Your task to perform on an android device: change alarm snooze length Image 0: 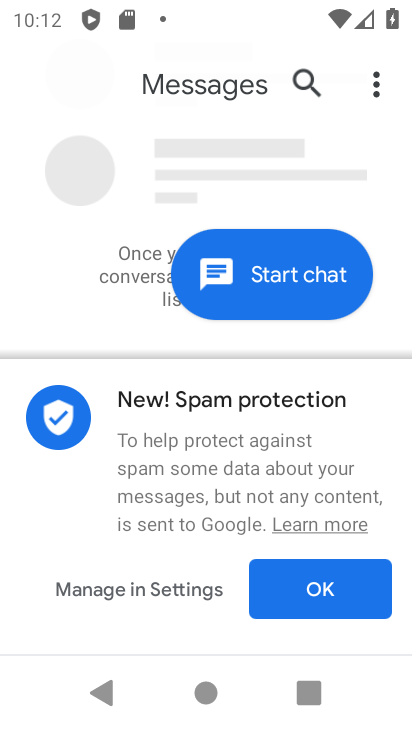
Step 0: click (307, 580)
Your task to perform on an android device: change alarm snooze length Image 1: 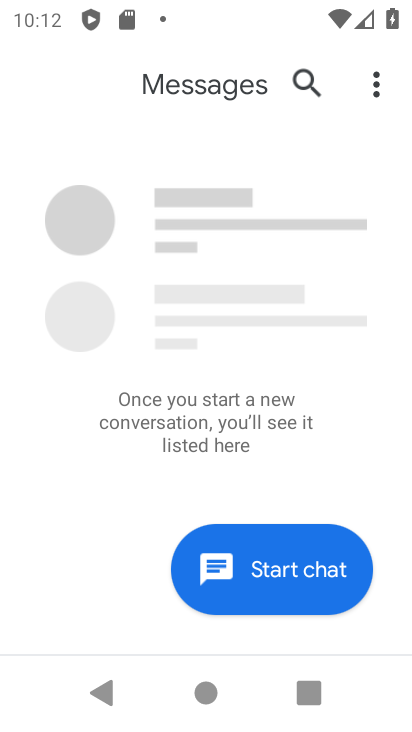
Step 1: press home button
Your task to perform on an android device: change alarm snooze length Image 2: 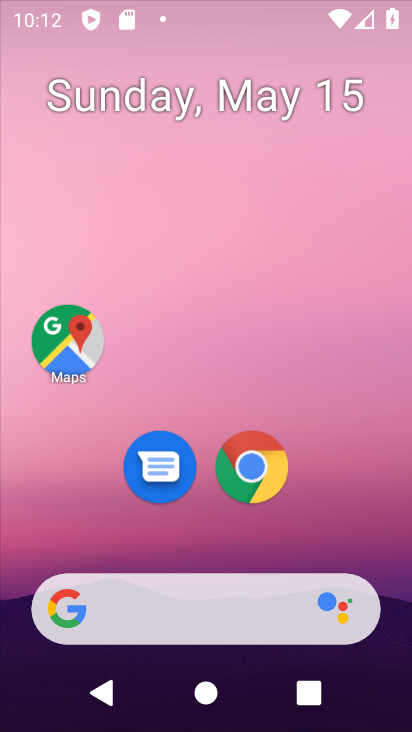
Step 2: drag from (221, 551) to (194, 346)
Your task to perform on an android device: change alarm snooze length Image 3: 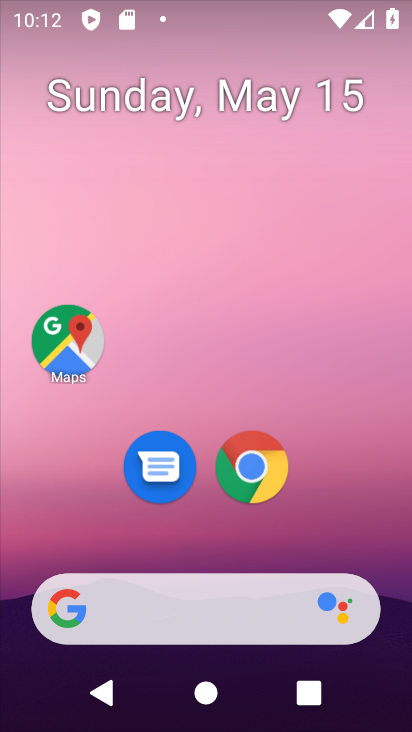
Step 3: drag from (180, 490) to (224, 147)
Your task to perform on an android device: change alarm snooze length Image 4: 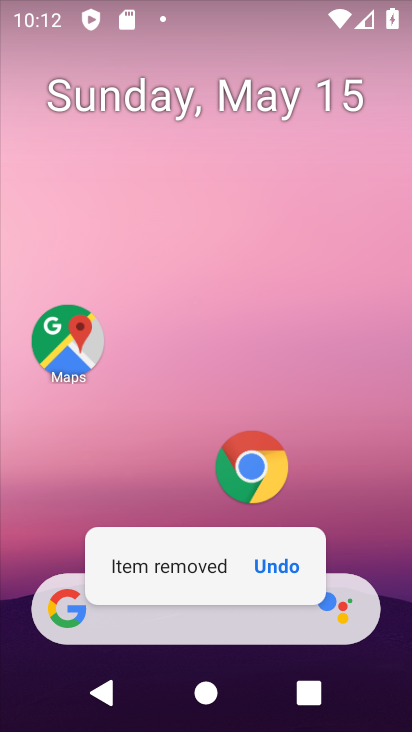
Step 4: drag from (210, 475) to (267, 134)
Your task to perform on an android device: change alarm snooze length Image 5: 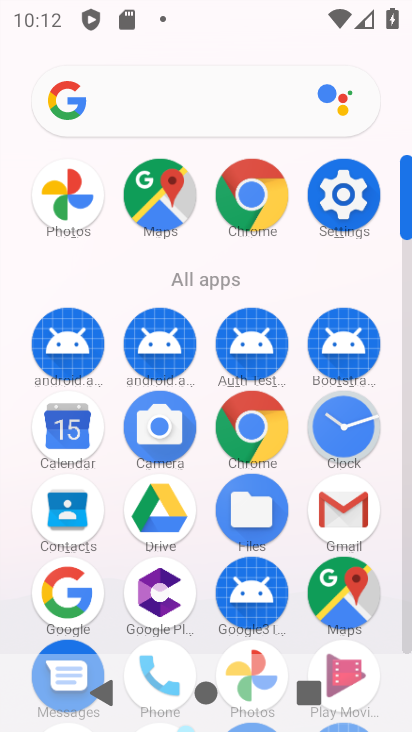
Step 5: click (337, 426)
Your task to perform on an android device: change alarm snooze length Image 6: 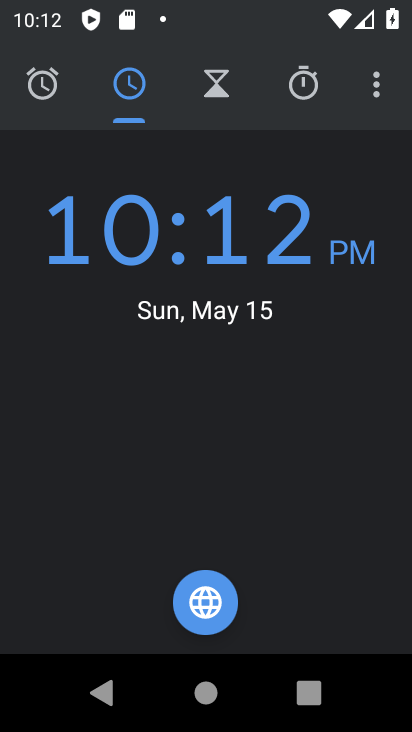
Step 6: click (325, 435)
Your task to perform on an android device: change alarm snooze length Image 7: 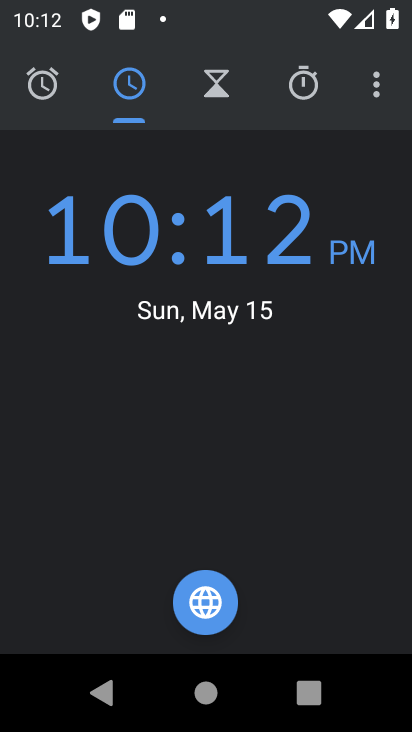
Step 7: click (364, 84)
Your task to perform on an android device: change alarm snooze length Image 8: 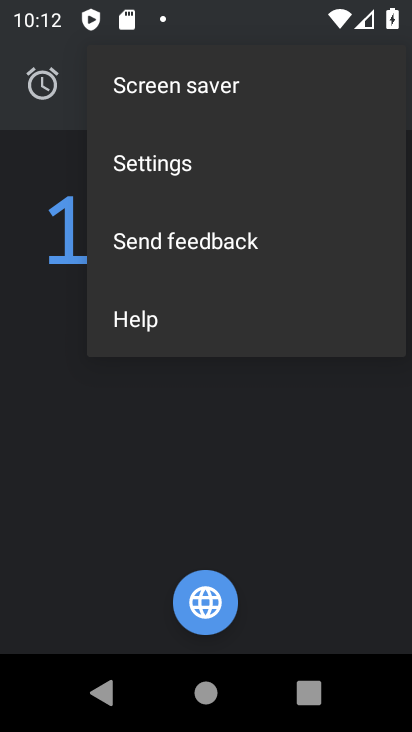
Step 8: click (227, 134)
Your task to perform on an android device: change alarm snooze length Image 9: 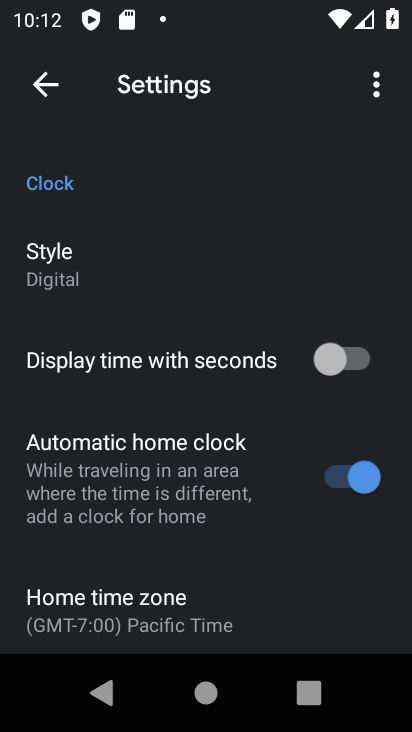
Step 9: click (266, 164)
Your task to perform on an android device: change alarm snooze length Image 10: 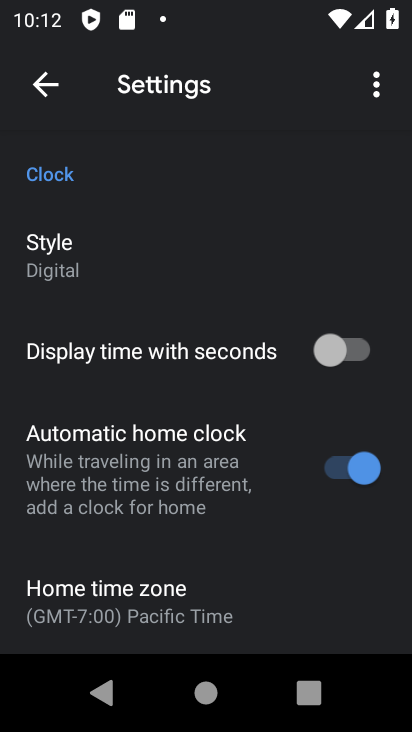
Step 10: drag from (234, 587) to (299, 192)
Your task to perform on an android device: change alarm snooze length Image 11: 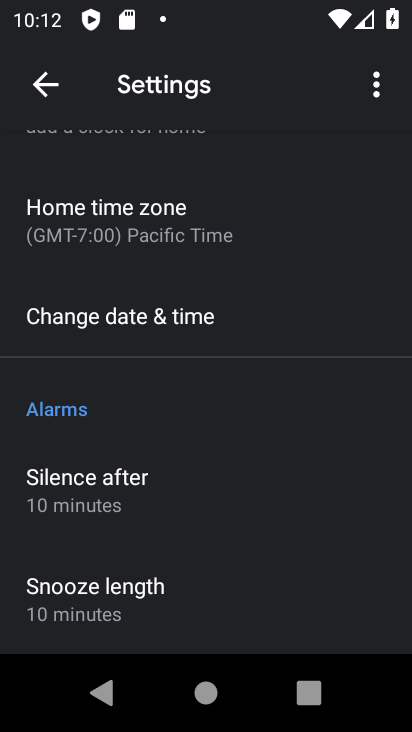
Step 11: click (153, 629)
Your task to perform on an android device: change alarm snooze length Image 12: 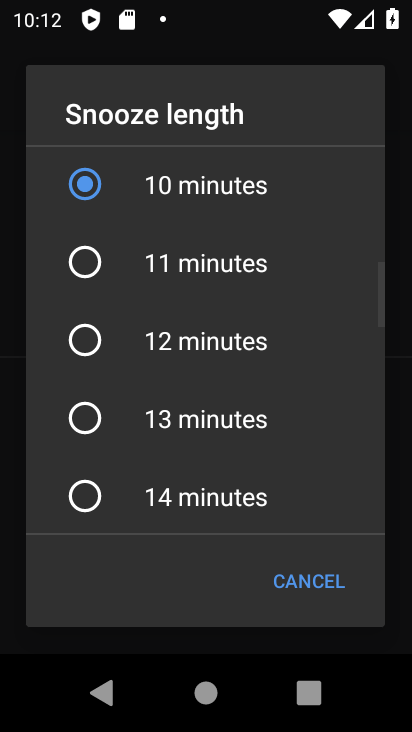
Step 12: click (142, 439)
Your task to perform on an android device: change alarm snooze length Image 13: 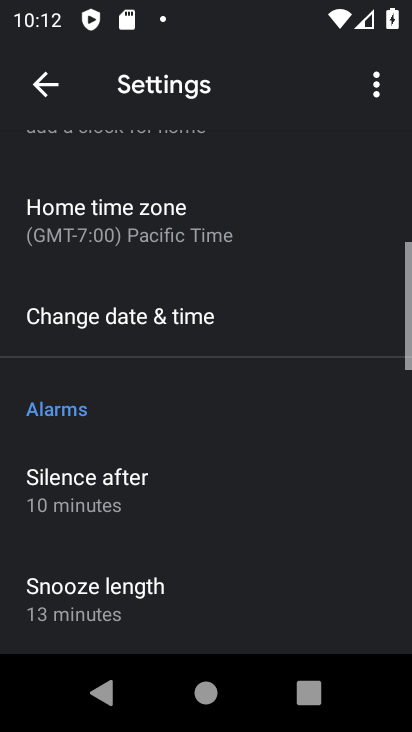
Step 13: task complete